Your task to perform on an android device: turn pop-ups off in chrome Image 0: 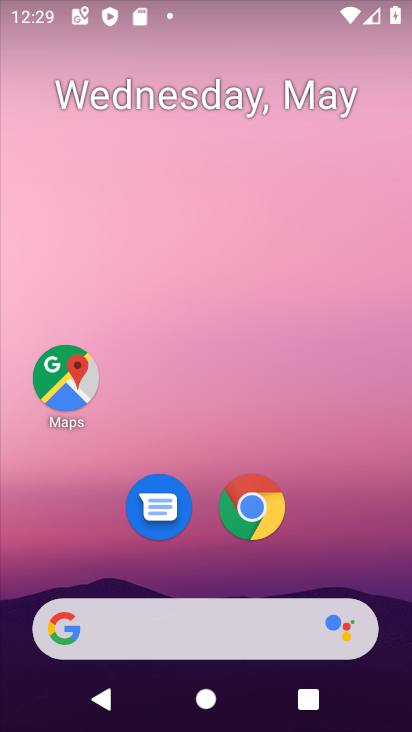
Step 0: click (238, 515)
Your task to perform on an android device: turn pop-ups off in chrome Image 1: 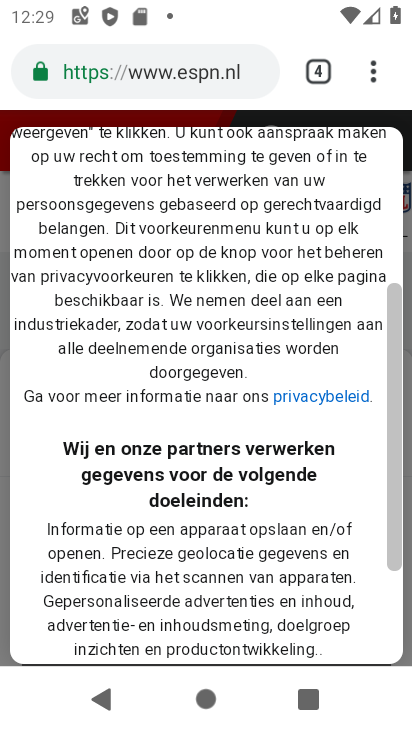
Step 1: click (360, 70)
Your task to perform on an android device: turn pop-ups off in chrome Image 2: 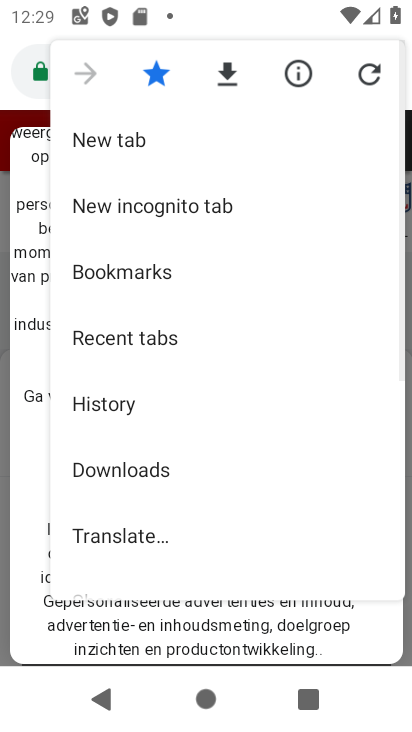
Step 2: drag from (202, 535) to (249, 181)
Your task to perform on an android device: turn pop-ups off in chrome Image 3: 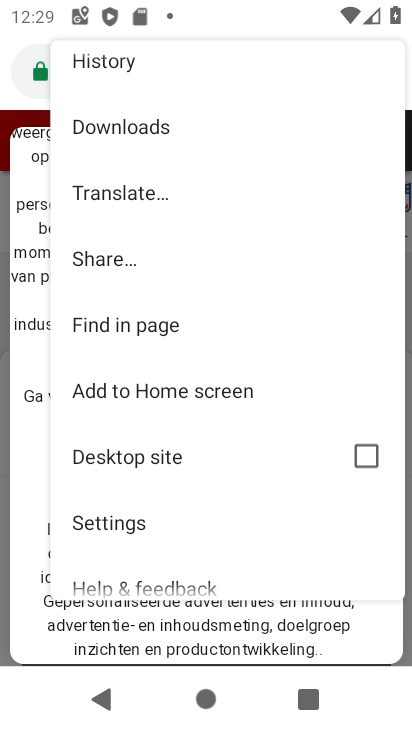
Step 3: click (138, 510)
Your task to perform on an android device: turn pop-ups off in chrome Image 4: 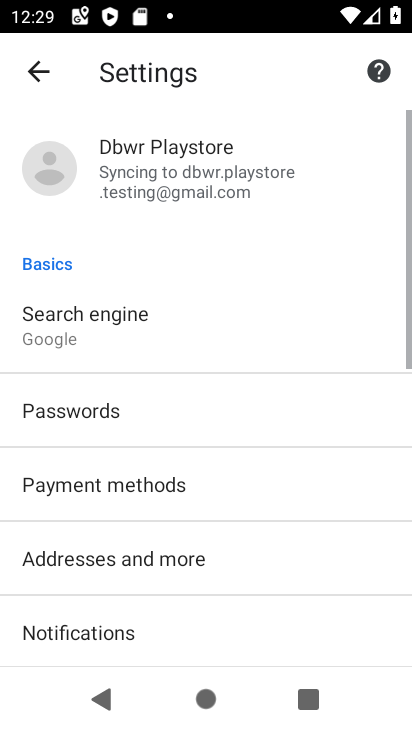
Step 4: drag from (190, 601) to (277, 229)
Your task to perform on an android device: turn pop-ups off in chrome Image 5: 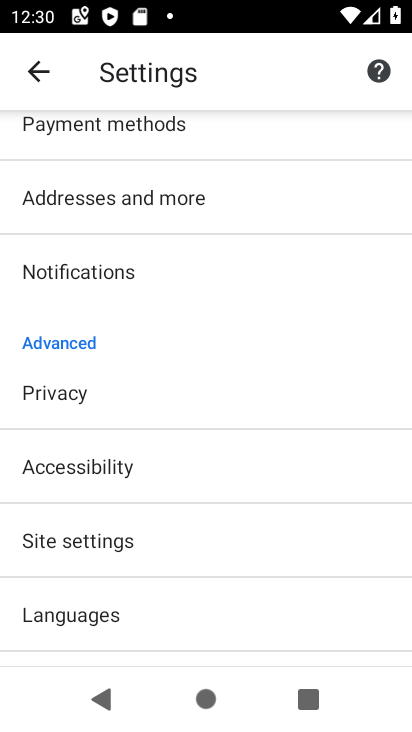
Step 5: click (147, 538)
Your task to perform on an android device: turn pop-ups off in chrome Image 6: 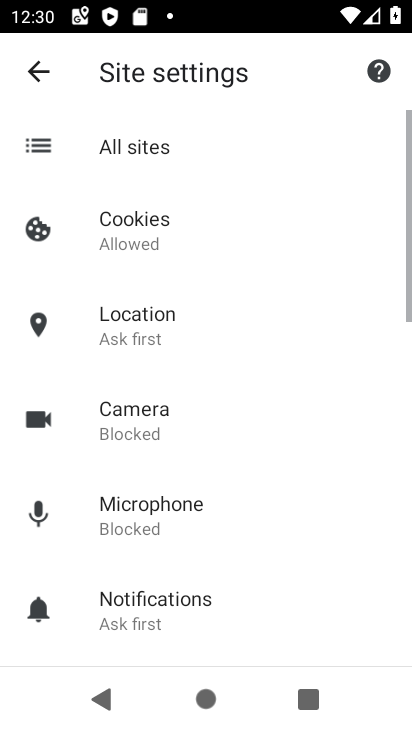
Step 6: drag from (228, 587) to (287, 240)
Your task to perform on an android device: turn pop-ups off in chrome Image 7: 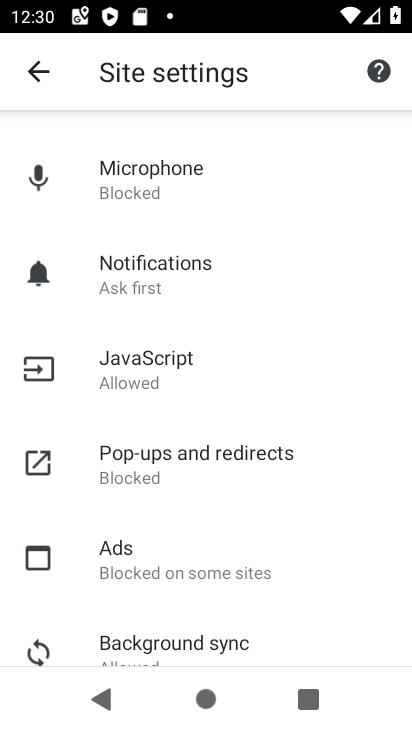
Step 7: click (212, 449)
Your task to perform on an android device: turn pop-ups off in chrome Image 8: 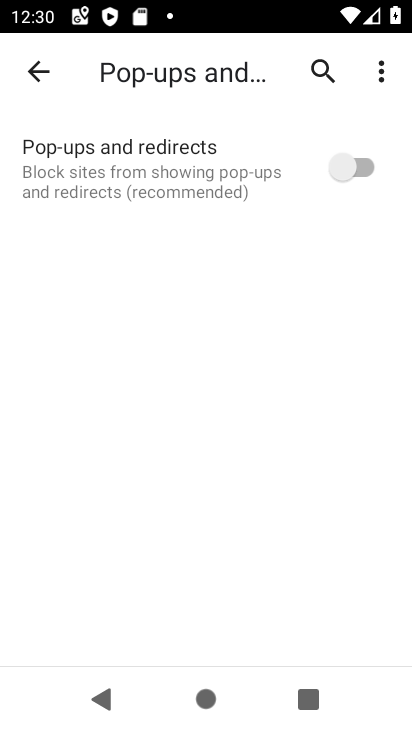
Step 8: task complete